Your task to perform on an android device: open a bookmark in the chrome app Image 0: 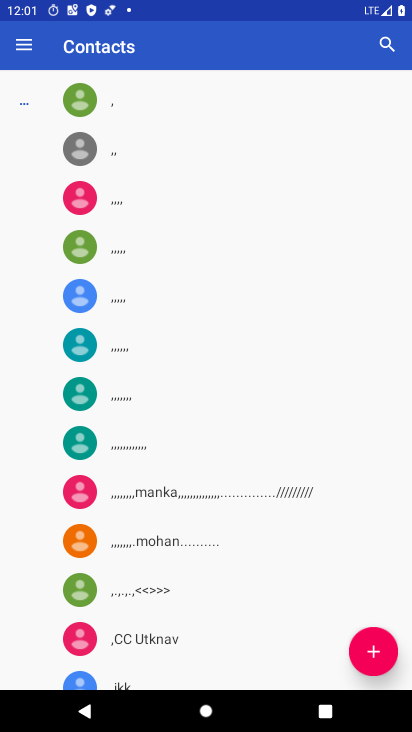
Step 0: press home button
Your task to perform on an android device: open a bookmark in the chrome app Image 1: 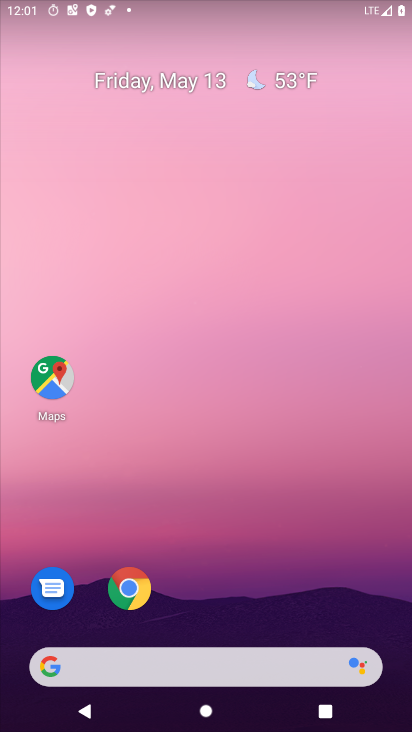
Step 1: click (132, 583)
Your task to perform on an android device: open a bookmark in the chrome app Image 2: 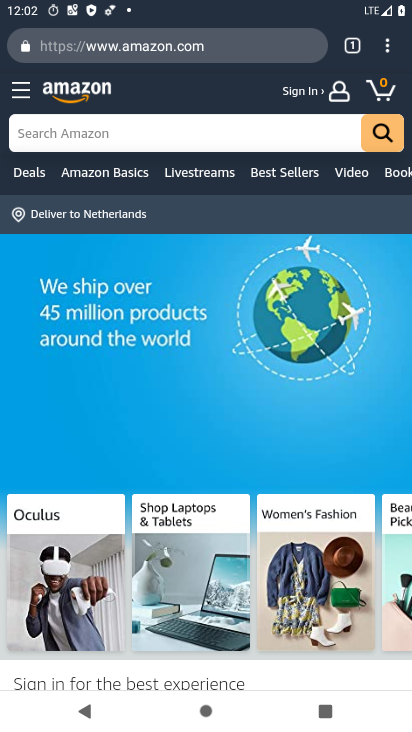
Step 2: click (386, 37)
Your task to perform on an android device: open a bookmark in the chrome app Image 3: 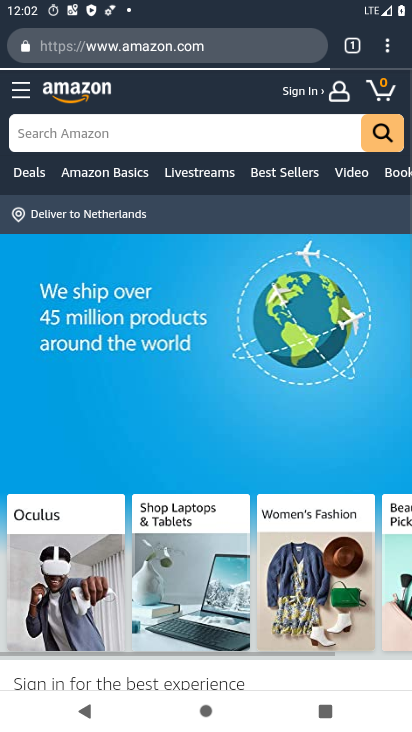
Step 3: task complete